Your task to perform on an android device: Open Google Maps and go to "Timeline" Image 0: 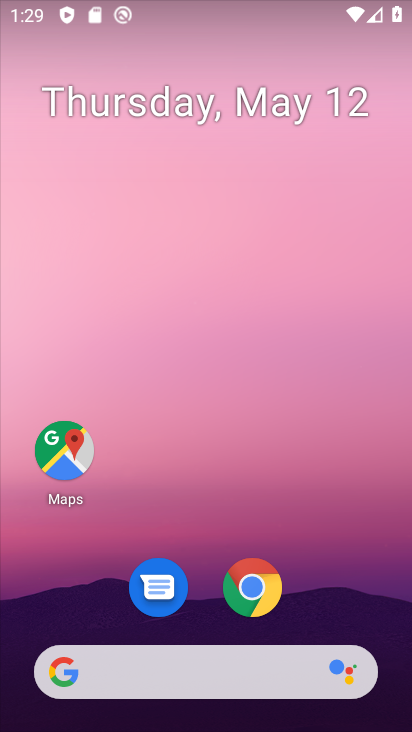
Step 0: click (70, 427)
Your task to perform on an android device: Open Google Maps and go to "Timeline" Image 1: 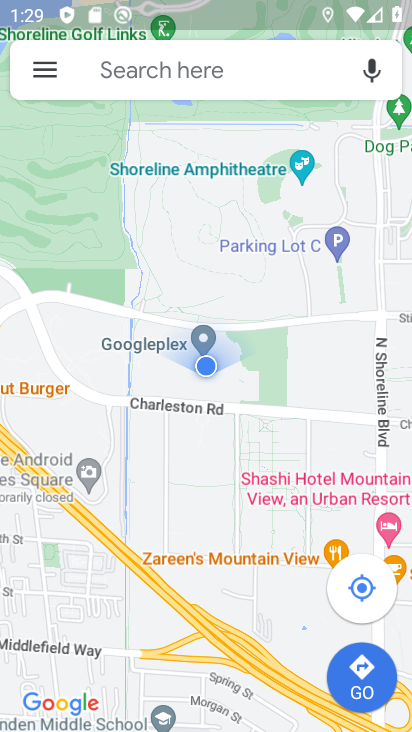
Step 1: click (66, 78)
Your task to perform on an android device: Open Google Maps and go to "Timeline" Image 2: 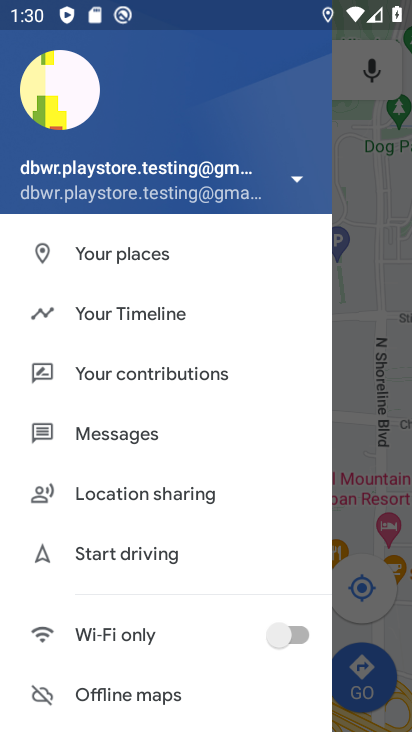
Step 2: click (164, 315)
Your task to perform on an android device: Open Google Maps and go to "Timeline" Image 3: 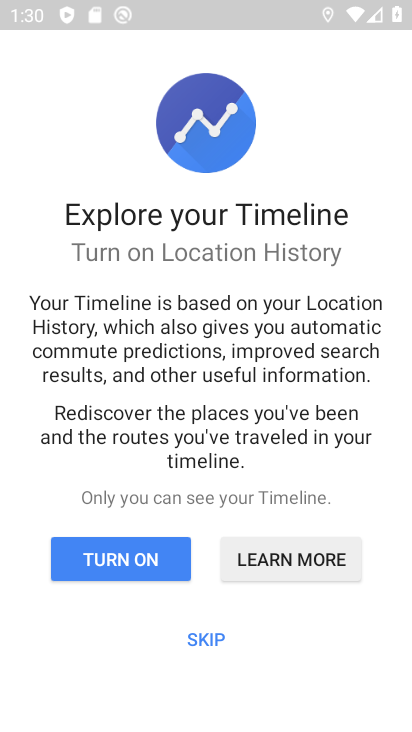
Step 3: click (135, 568)
Your task to perform on an android device: Open Google Maps and go to "Timeline" Image 4: 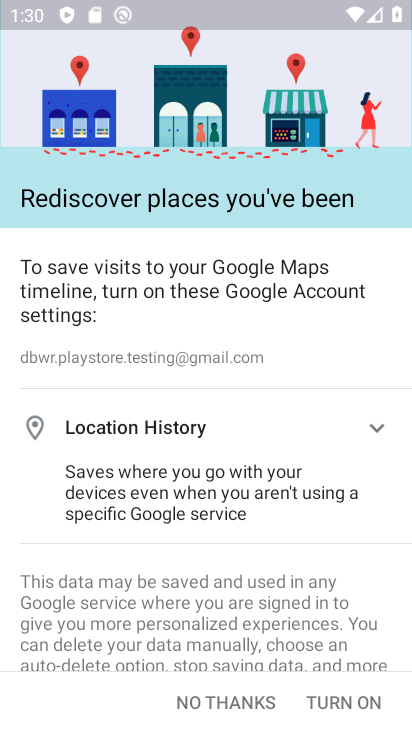
Step 4: task complete